Your task to perform on an android device: What's the weather today? Image 0: 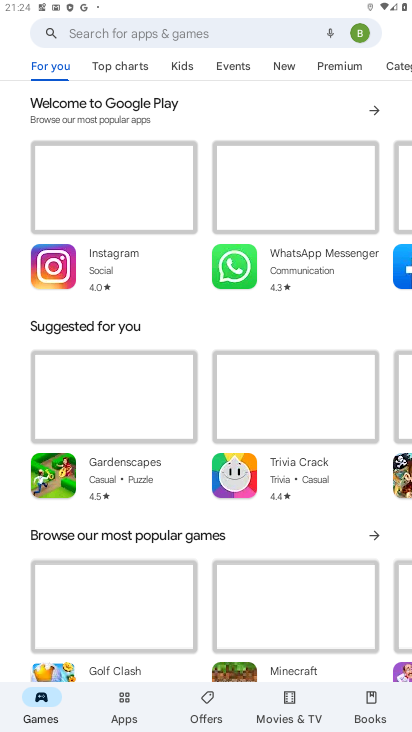
Step 0: press home button
Your task to perform on an android device: What's the weather today? Image 1: 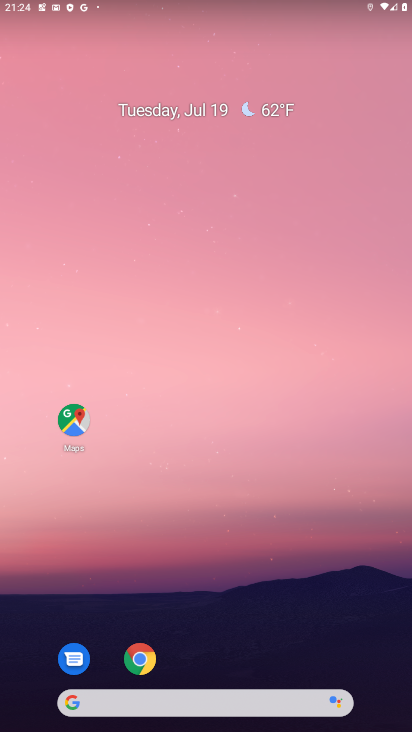
Step 1: click (139, 672)
Your task to perform on an android device: What's the weather today? Image 2: 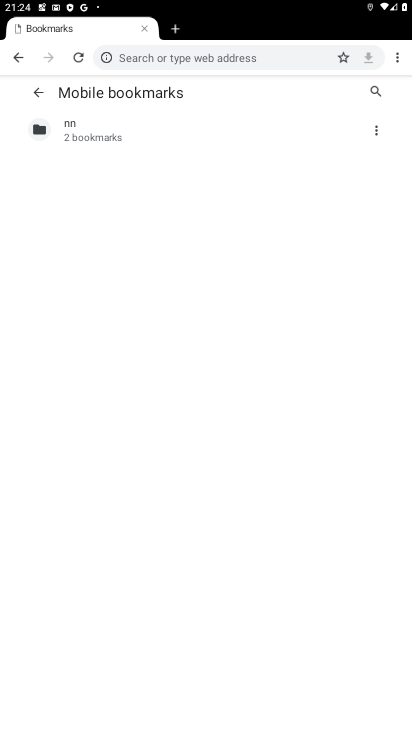
Step 2: click (191, 57)
Your task to perform on an android device: What's the weather today? Image 3: 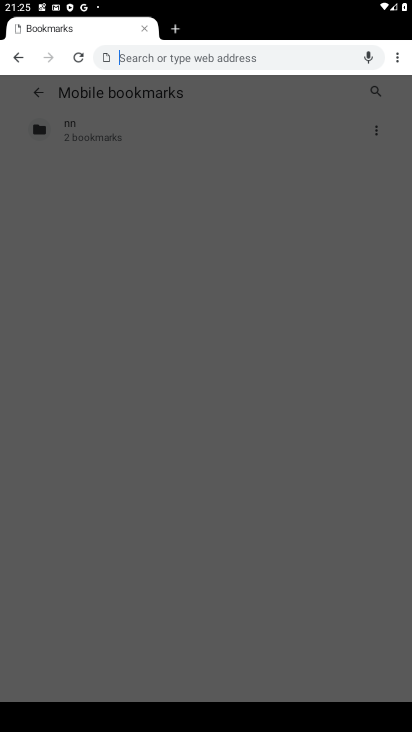
Step 3: type "What's the weather today?"
Your task to perform on an android device: What's the weather today? Image 4: 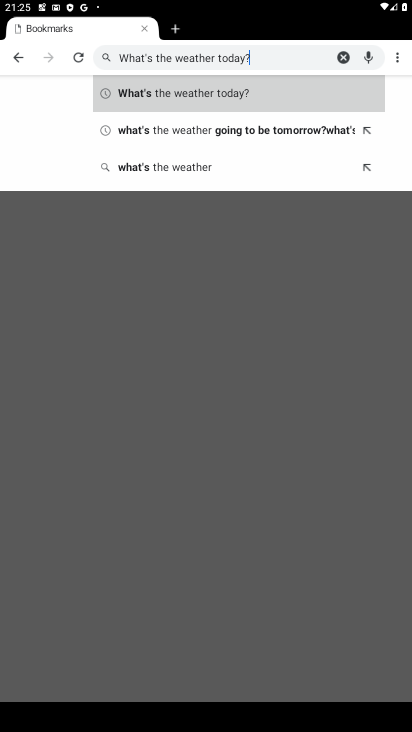
Step 4: type ""
Your task to perform on an android device: What's the weather today? Image 5: 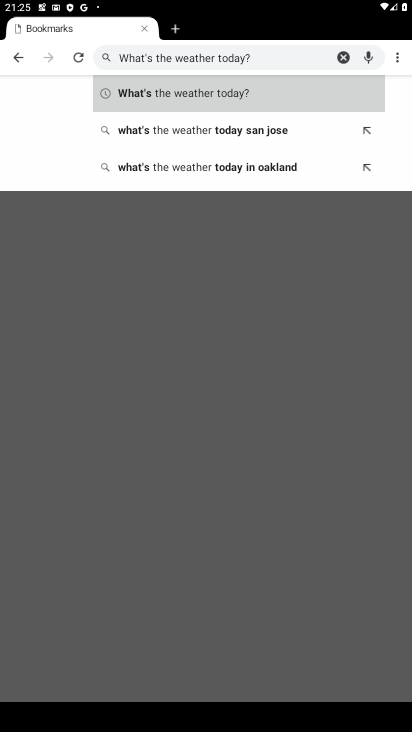
Step 5: click (208, 88)
Your task to perform on an android device: What's the weather today? Image 6: 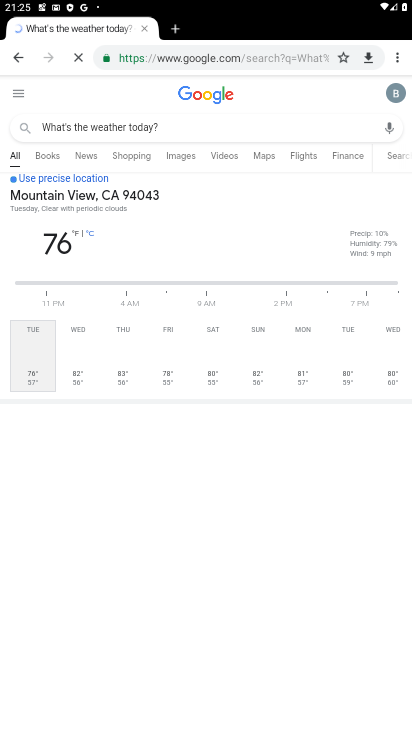
Step 6: task complete